Your task to perform on an android device: Open sound settings Image 0: 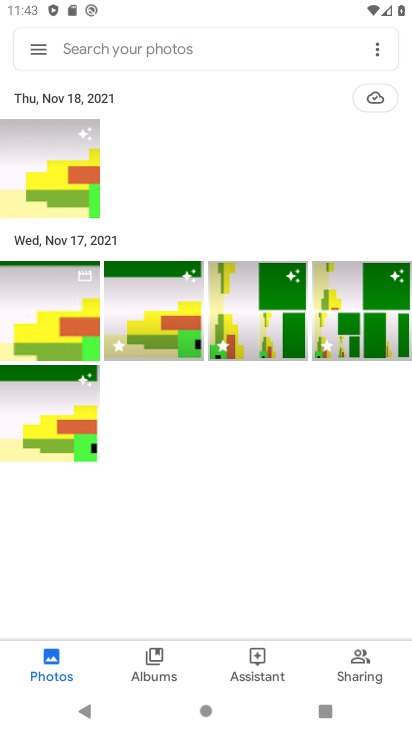
Step 0: drag from (327, 447) to (267, 154)
Your task to perform on an android device: Open sound settings Image 1: 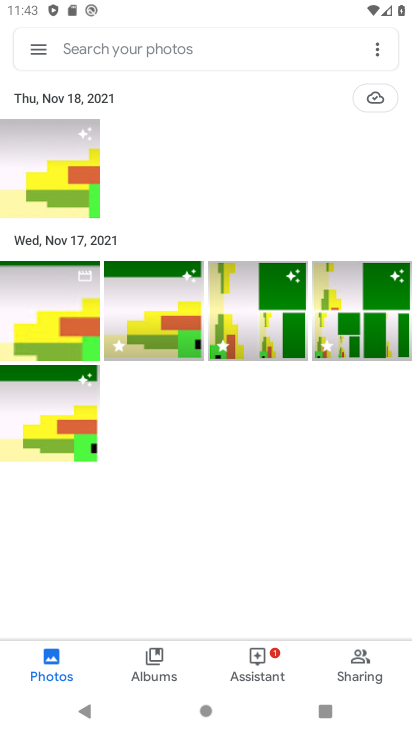
Step 1: press back button
Your task to perform on an android device: Open sound settings Image 2: 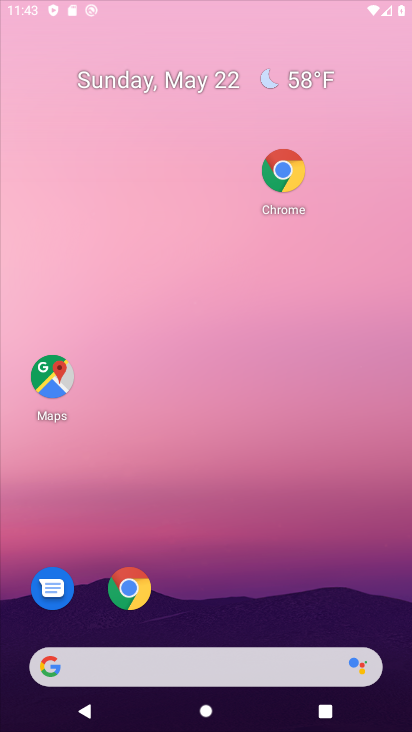
Step 2: drag from (268, 494) to (266, 23)
Your task to perform on an android device: Open sound settings Image 3: 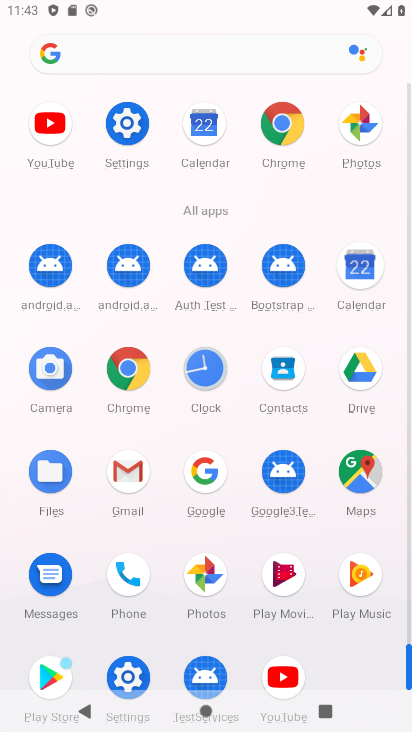
Step 3: click (117, 131)
Your task to perform on an android device: Open sound settings Image 4: 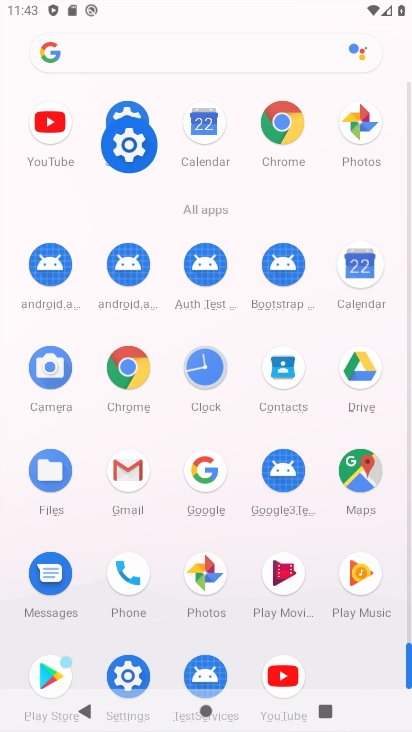
Step 4: click (121, 130)
Your task to perform on an android device: Open sound settings Image 5: 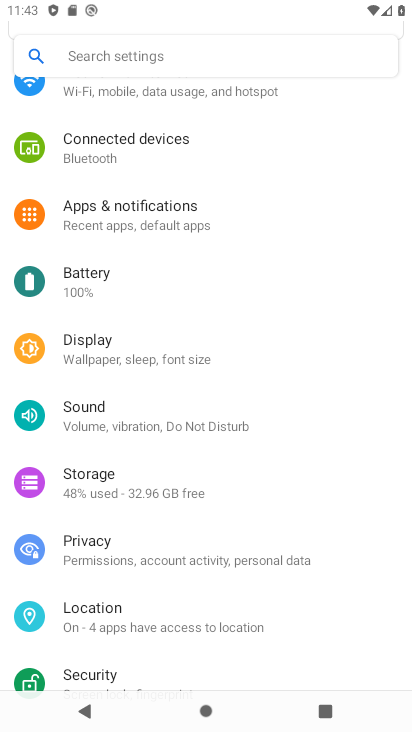
Step 5: click (125, 130)
Your task to perform on an android device: Open sound settings Image 6: 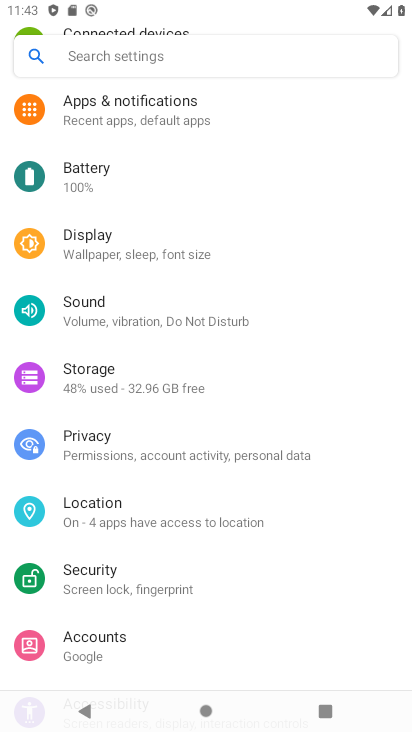
Step 6: click (127, 130)
Your task to perform on an android device: Open sound settings Image 7: 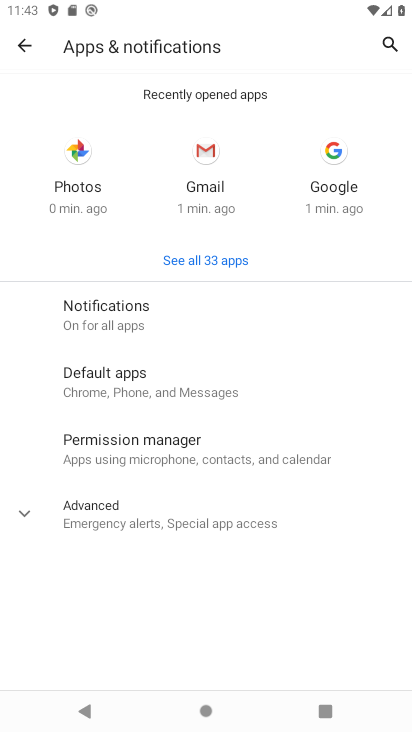
Step 7: click (96, 309)
Your task to perform on an android device: Open sound settings Image 8: 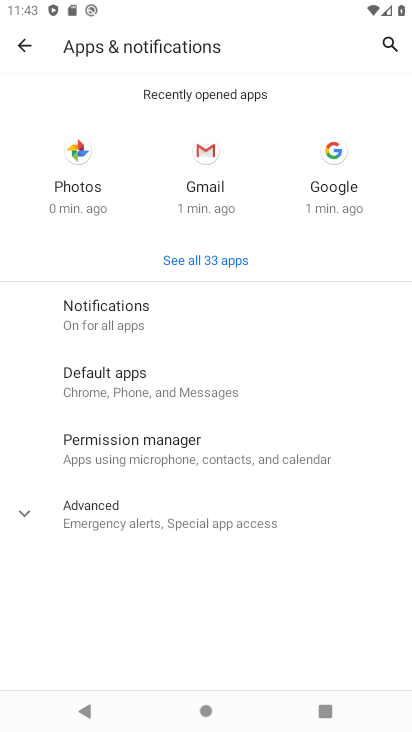
Step 8: click (98, 310)
Your task to perform on an android device: Open sound settings Image 9: 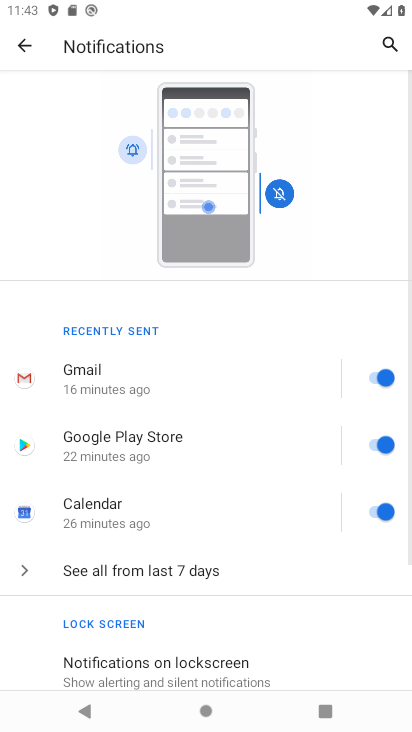
Step 9: click (19, 40)
Your task to perform on an android device: Open sound settings Image 10: 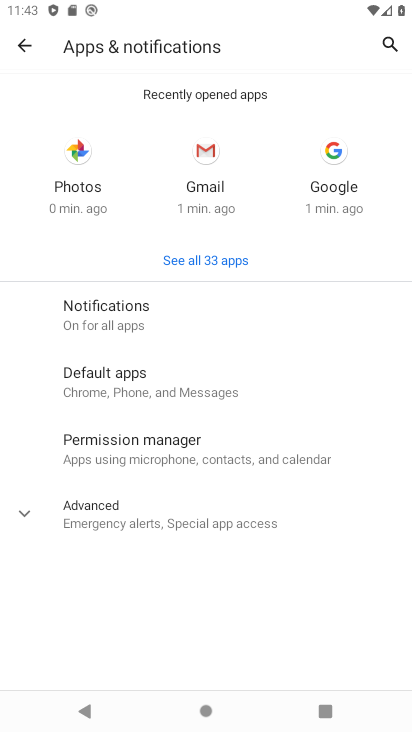
Step 10: click (20, 45)
Your task to perform on an android device: Open sound settings Image 11: 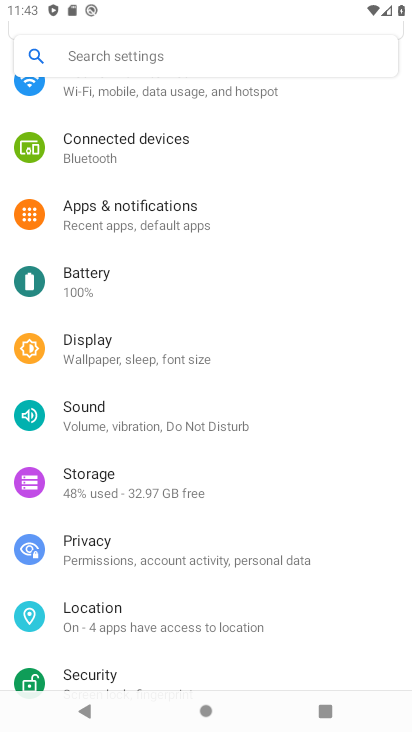
Step 11: click (98, 410)
Your task to perform on an android device: Open sound settings Image 12: 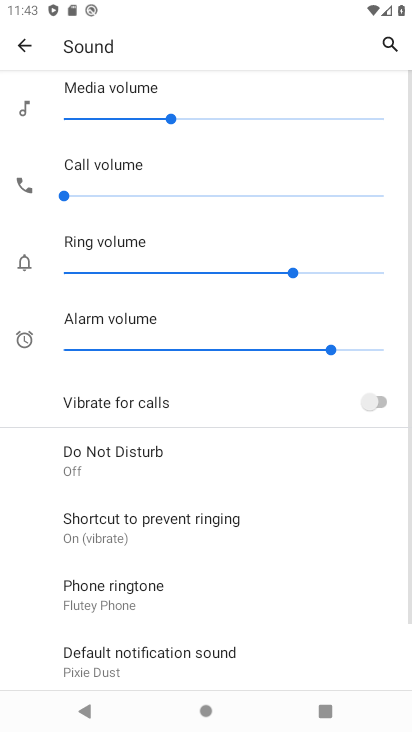
Step 12: drag from (169, 484) to (172, 100)
Your task to perform on an android device: Open sound settings Image 13: 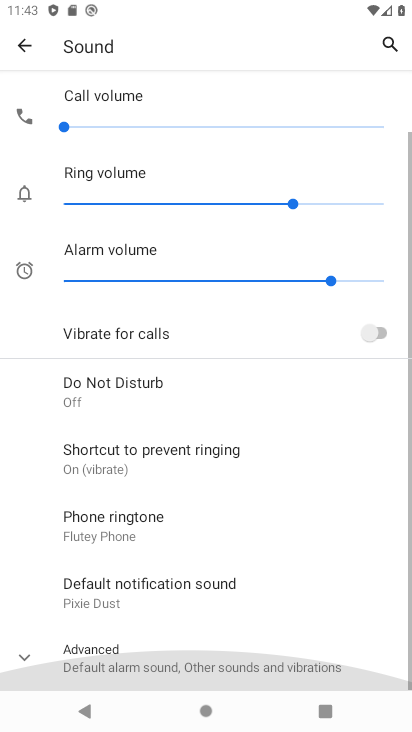
Step 13: drag from (172, 387) to (172, 55)
Your task to perform on an android device: Open sound settings Image 14: 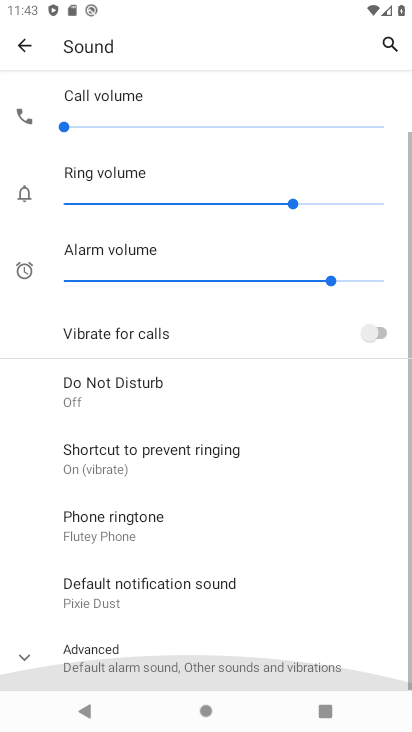
Step 14: drag from (158, 375) to (158, 119)
Your task to perform on an android device: Open sound settings Image 15: 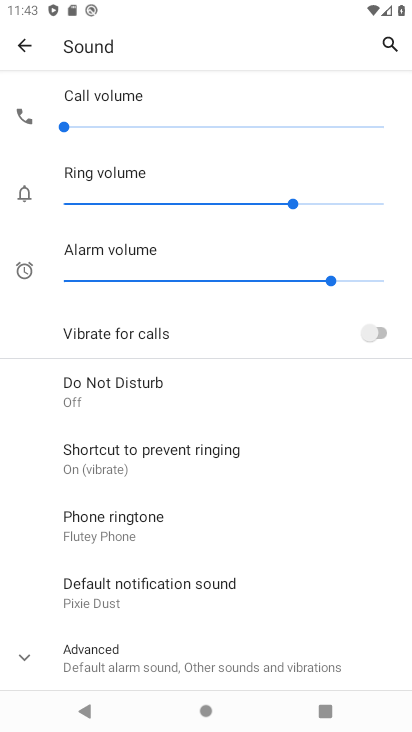
Step 15: drag from (188, 524) to (187, 134)
Your task to perform on an android device: Open sound settings Image 16: 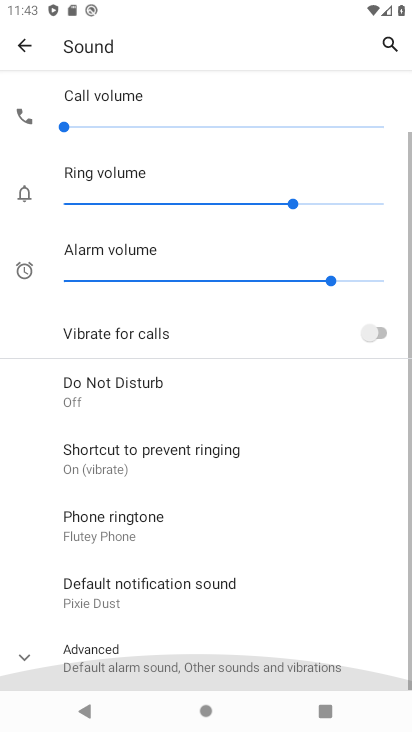
Step 16: drag from (113, 495) to (97, 122)
Your task to perform on an android device: Open sound settings Image 17: 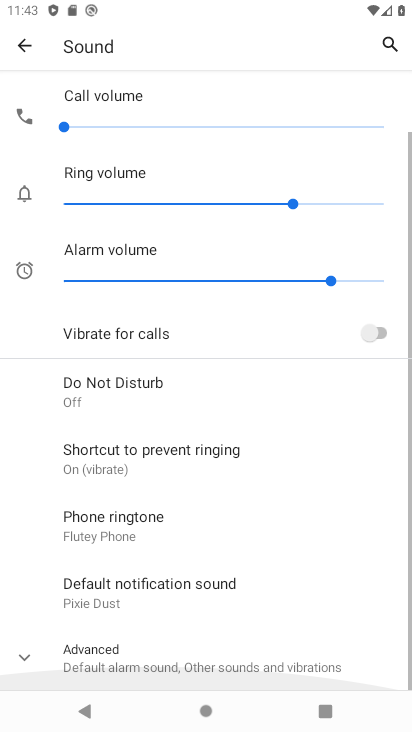
Step 17: click (157, 152)
Your task to perform on an android device: Open sound settings Image 18: 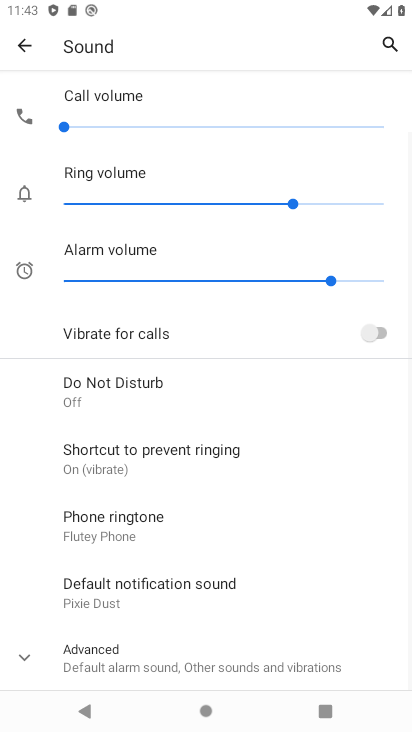
Step 18: task complete